Your task to perform on an android device: find snoozed emails in the gmail app Image 0: 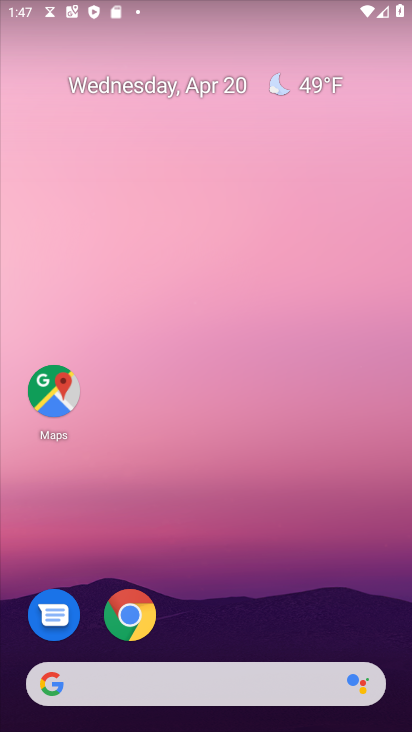
Step 0: drag from (151, 334) to (194, 257)
Your task to perform on an android device: find snoozed emails in the gmail app Image 1: 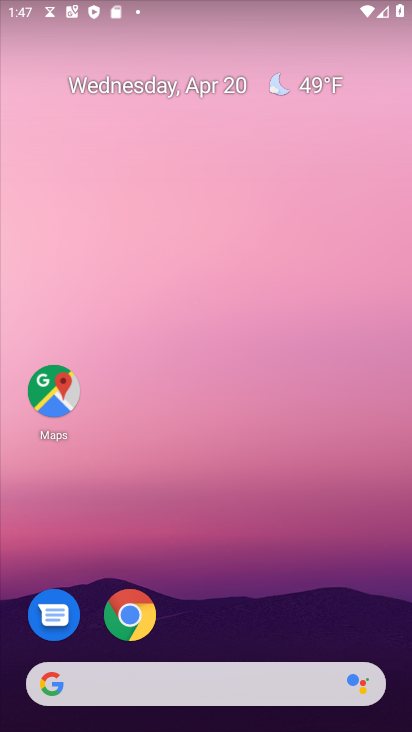
Step 1: drag from (172, 403) to (249, 224)
Your task to perform on an android device: find snoozed emails in the gmail app Image 2: 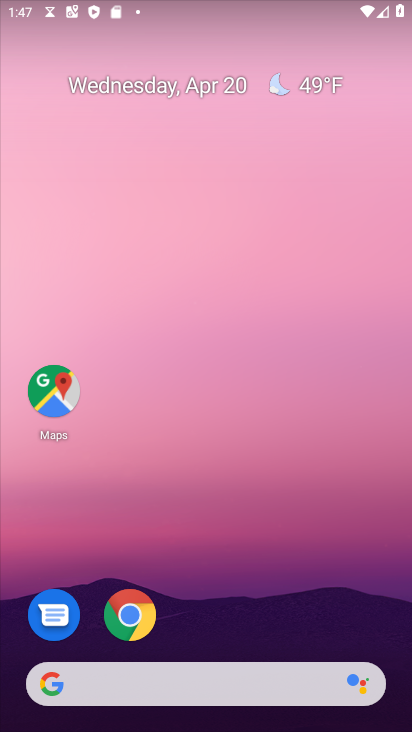
Step 2: drag from (147, 359) to (216, 194)
Your task to perform on an android device: find snoozed emails in the gmail app Image 3: 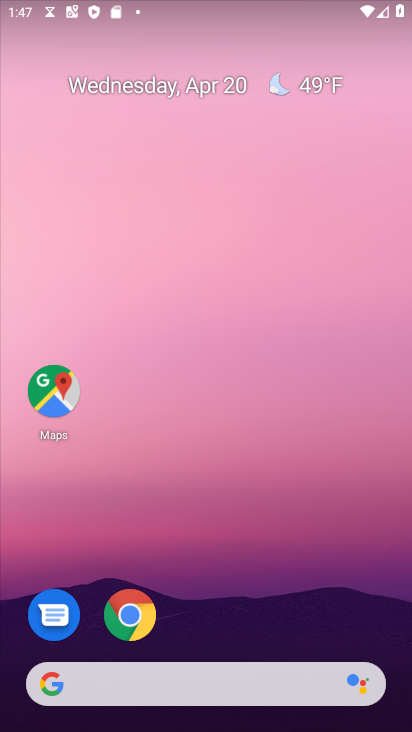
Step 3: drag from (107, 454) to (183, 251)
Your task to perform on an android device: find snoozed emails in the gmail app Image 4: 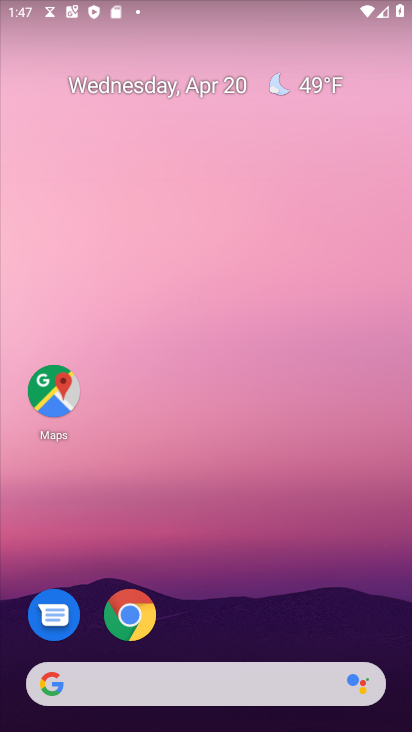
Step 4: drag from (23, 590) to (195, 315)
Your task to perform on an android device: find snoozed emails in the gmail app Image 5: 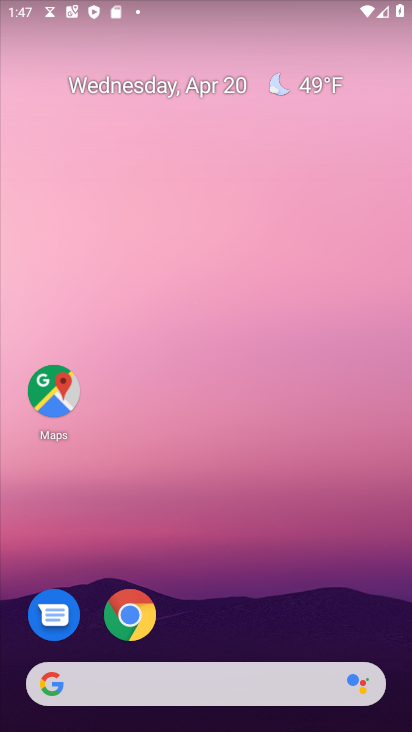
Step 5: drag from (11, 683) to (223, 297)
Your task to perform on an android device: find snoozed emails in the gmail app Image 6: 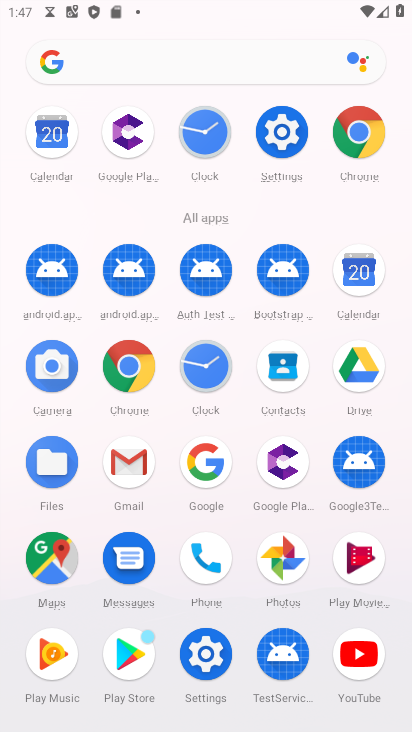
Step 6: click (124, 437)
Your task to perform on an android device: find snoozed emails in the gmail app Image 7: 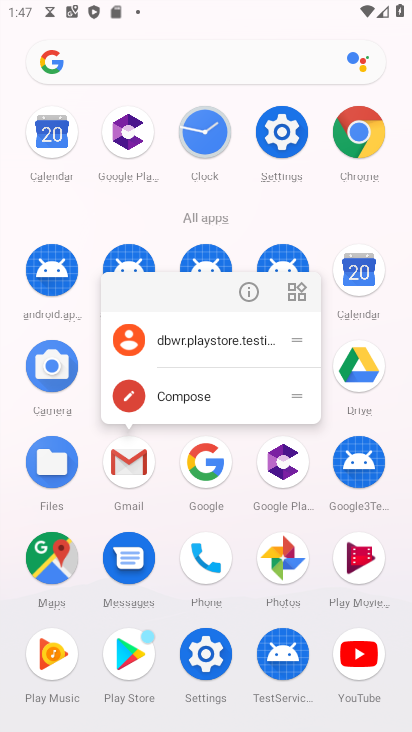
Step 7: click (131, 450)
Your task to perform on an android device: find snoozed emails in the gmail app Image 8: 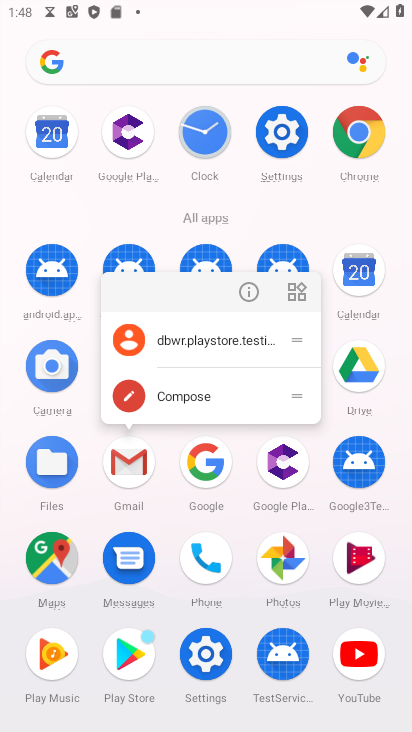
Step 8: click (129, 456)
Your task to perform on an android device: find snoozed emails in the gmail app Image 9: 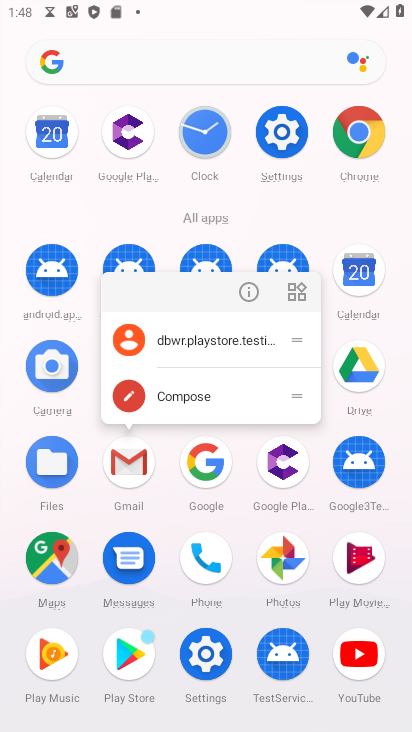
Step 9: click (128, 454)
Your task to perform on an android device: find snoozed emails in the gmail app Image 10: 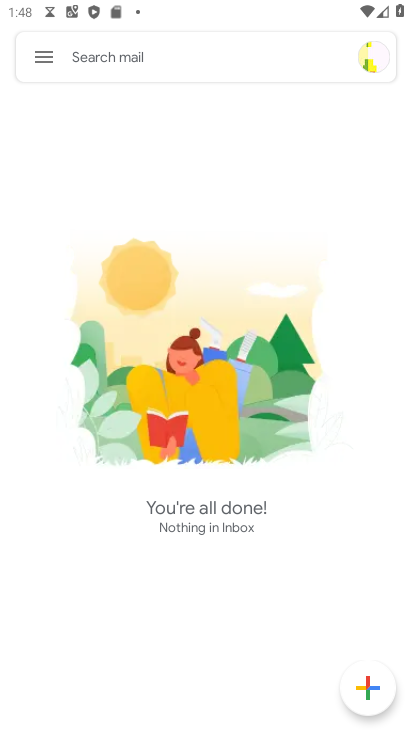
Step 10: click (39, 49)
Your task to perform on an android device: find snoozed emails in the gmail app Image 11: 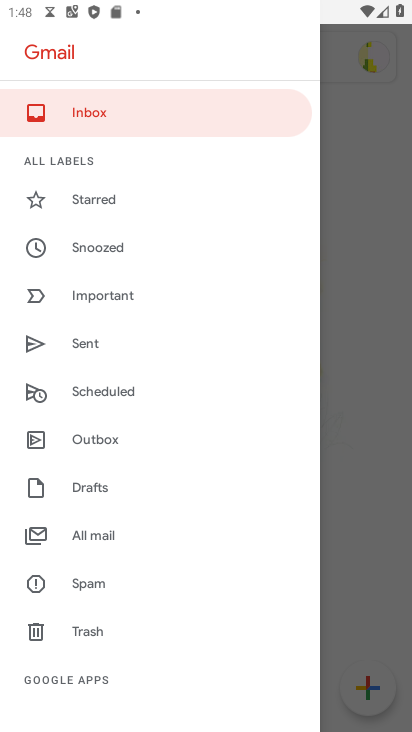
Step 11: click (90, 236)
Your task to perform on an android device: find snoozed emails in the gmail app Image 12: 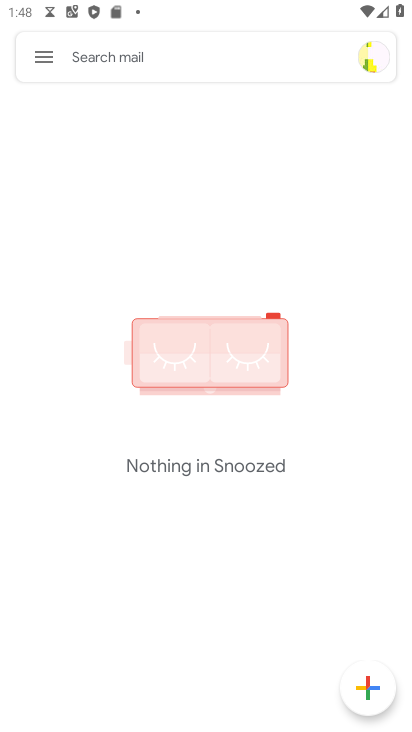
Step 12: task complete